Your task to perform on an android device: add a contact Image 0: 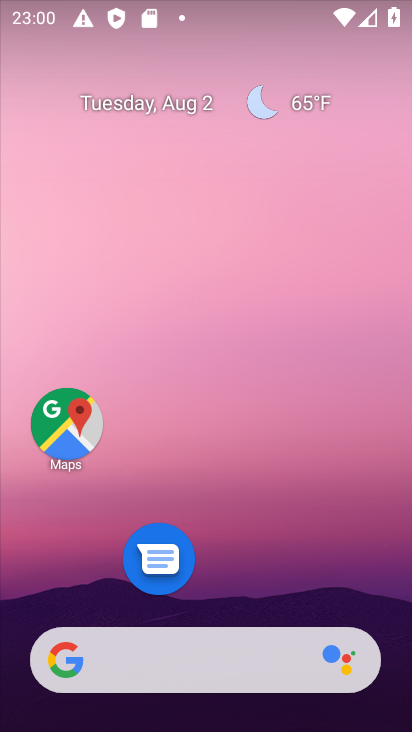
Step 0: drag from (160, 352) to (144, 240)
Your task to perform on an android device: add a contact Image 1: 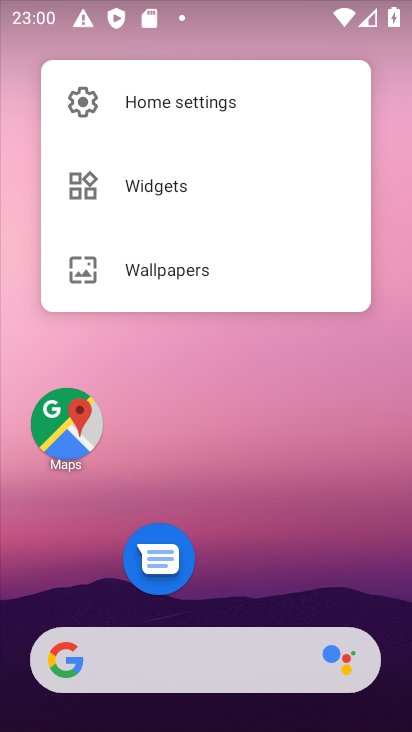
Step 1: drag from (225, 543) to (160, 126)
Your task to perform on an android device: add a contact Image 2: 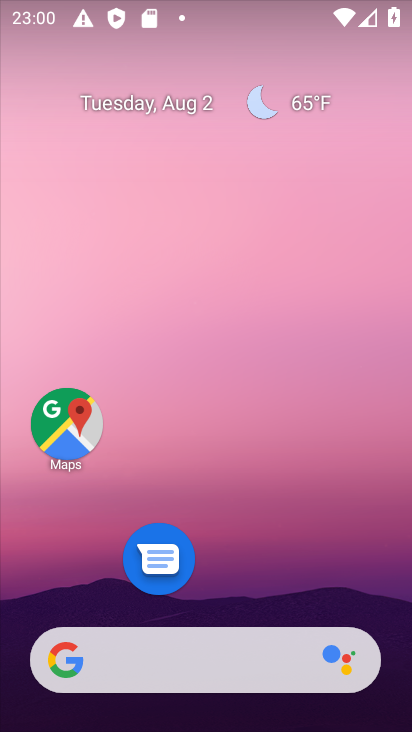
Step 2: drag from (232, 396) to (199, 73)
Your task to perform on an android device: add a contact Image 3: 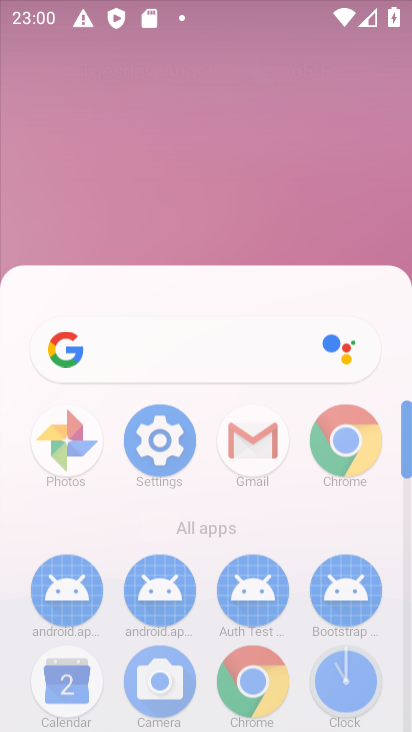
Step 3: drag from (227, 398) to (206, 35)
Your task to perform on an android device: add a contact Image 4: 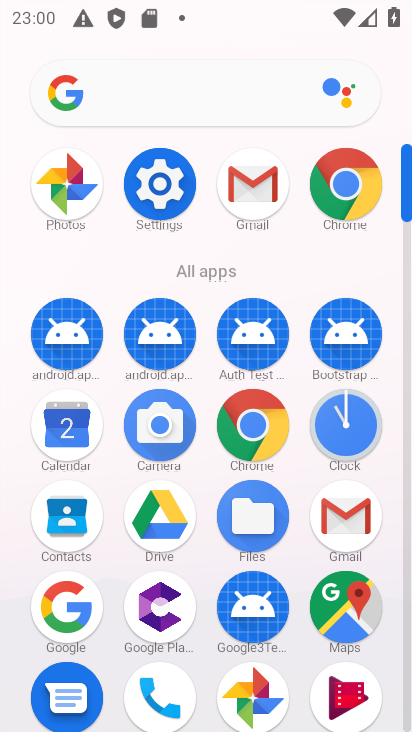
Step 4: drag from (268, 464) to (250, 183)
Your task to perform on an android device: add a contact Image 5: 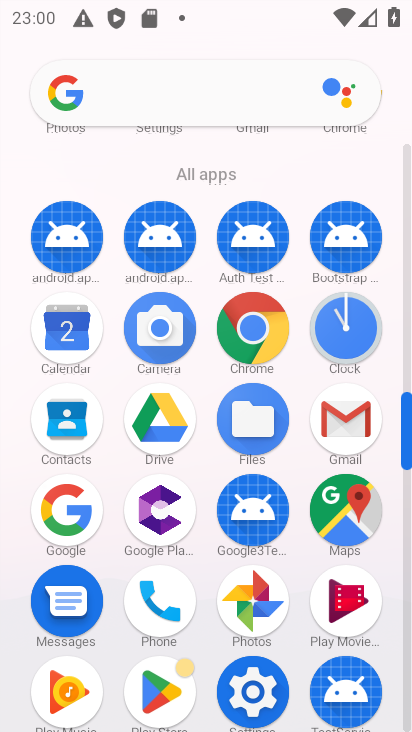
Step 5: click (244, 685)
Your task to perform on an android device: add a contact Image 6: 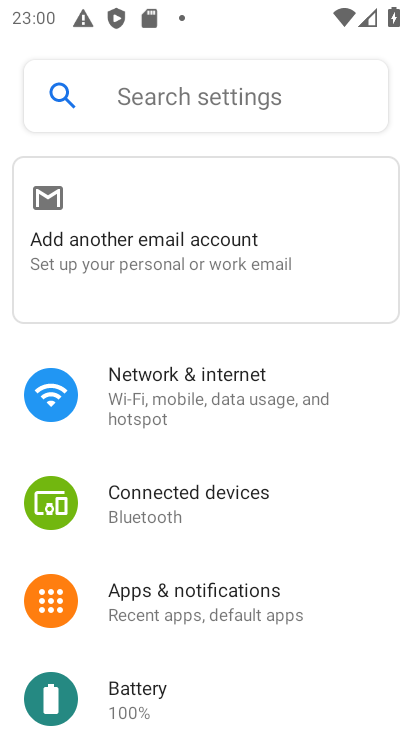
Step 6: click (250, 685)
Your task to perform on an android device: add a contact Image 7: 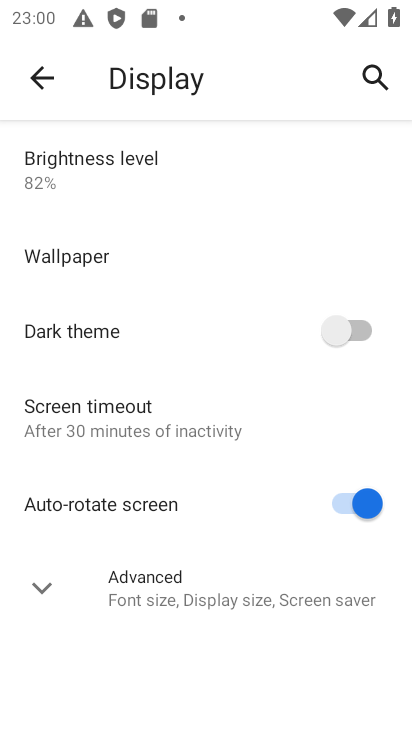
Step 7: click (38, 69)
Your task to perform on an android device: add a contact Image 8: 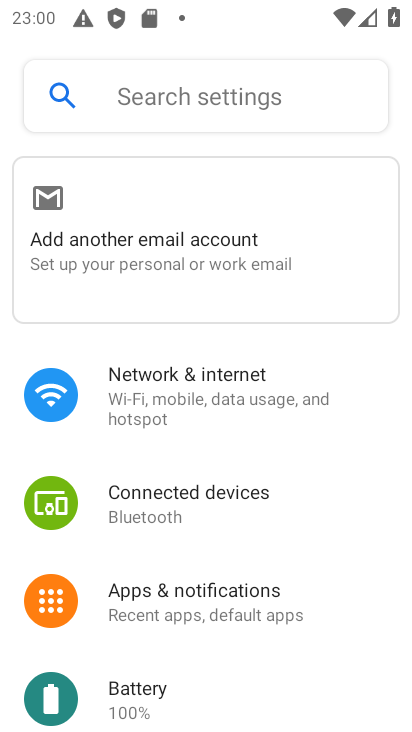
Step 8: drag from (157, 635) to (118, 370)
Your task to perform on an android device: add a contact Image 9: 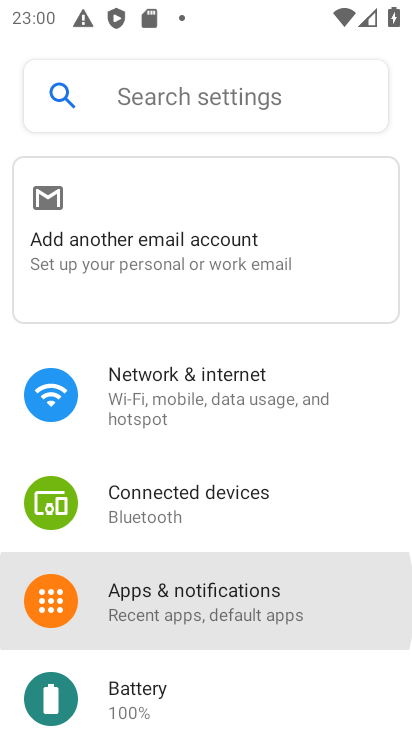
Step 9: drag from (164, 601) to (162, 397)
Your task to perform on an android device: add a contact Image 10: 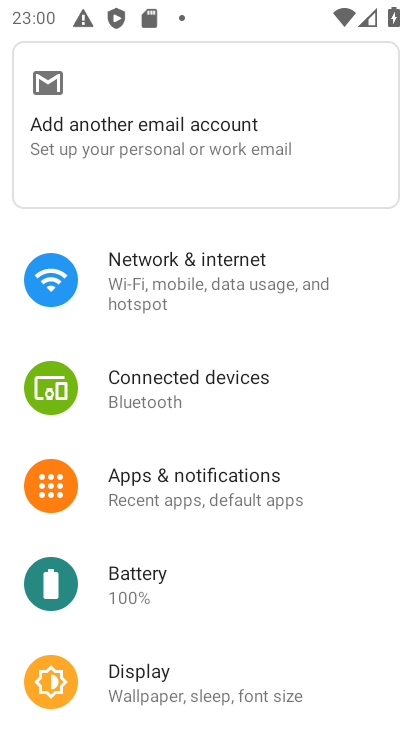
Step 10: drag from (197, 528) to (201, 420)
Your task to perform on an android device: add a contact Image 11: 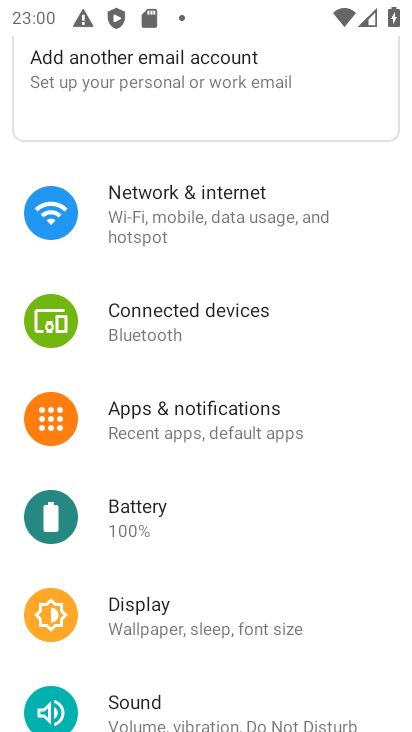
Step 11: press back button
Your task to perform on an android device: add a contact Image 12: 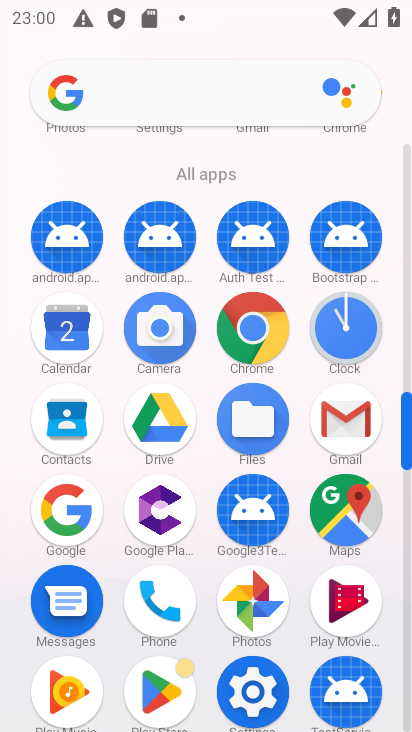
Step 12: click (60, 417)
Your task to perform on an android device: add a contact Image 13: 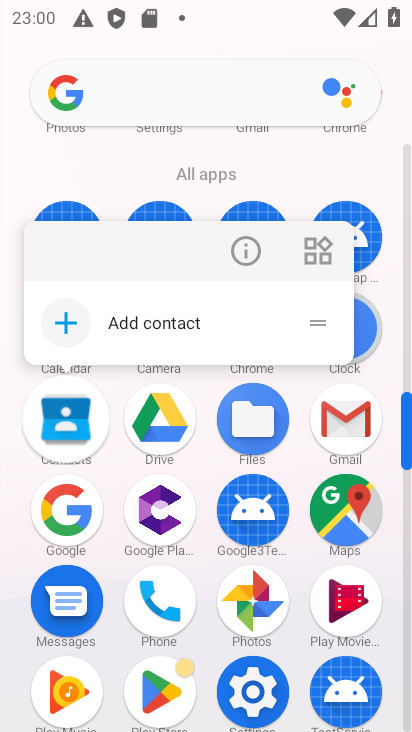
Step 13: click (60, 417)
Your task to perform on an android device: add a contact Image 14: 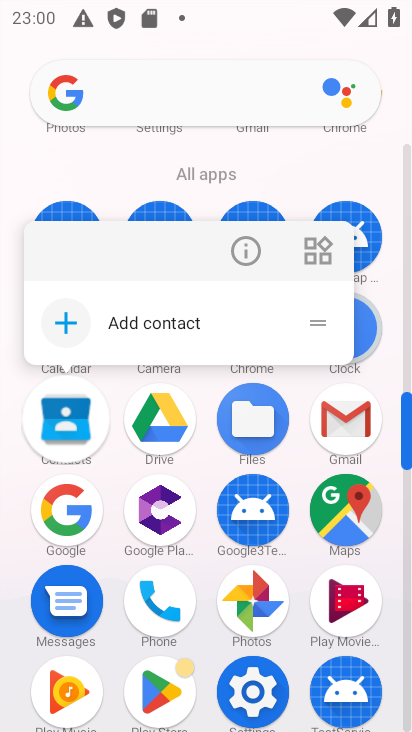
Step 14: click (63, 419)
Your task to perform on an android device: add a contact Image 15: 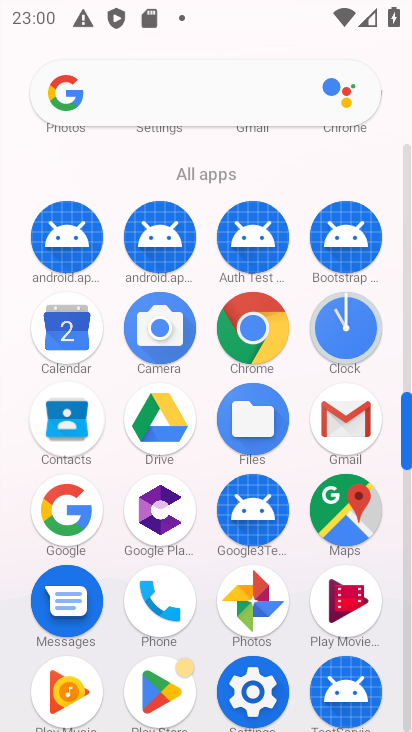
Step 15: click (64, 420)
Your task to perform on an android device: add a contact Image 16: 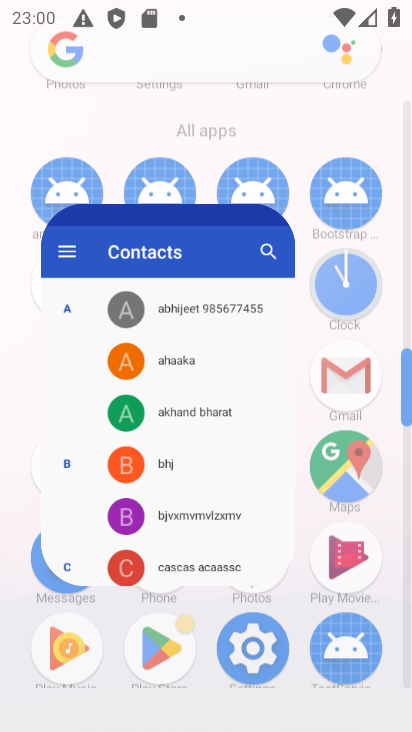
Step 16: click (64, 420)
Your task to perform on an android device: add a contact Image 17: 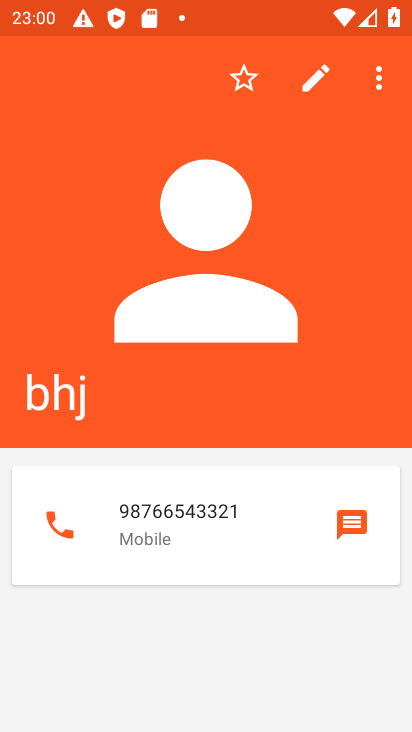
Step 17: press back button
Your task to perform on an android device: add a contact Image 18: 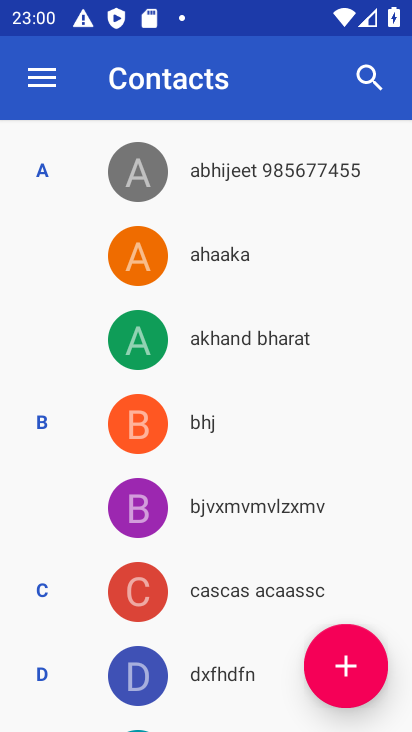
Step 18: click (329, 676)
Your task to perform on an android device: add a contact Image 19: 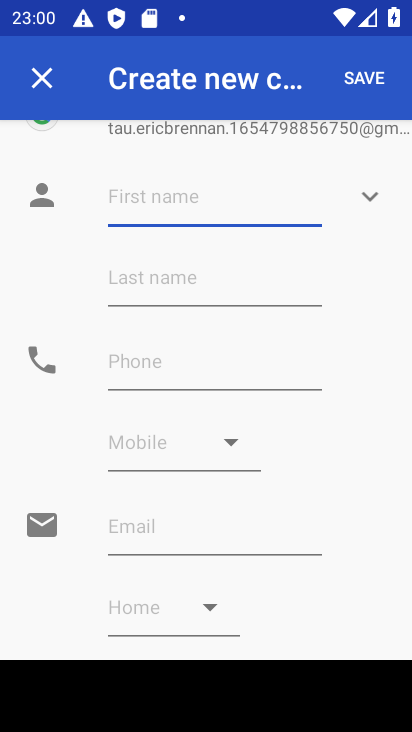
Step 19: type "hghjjjk"
Your task to perform on an android device: add a contact Image 20: 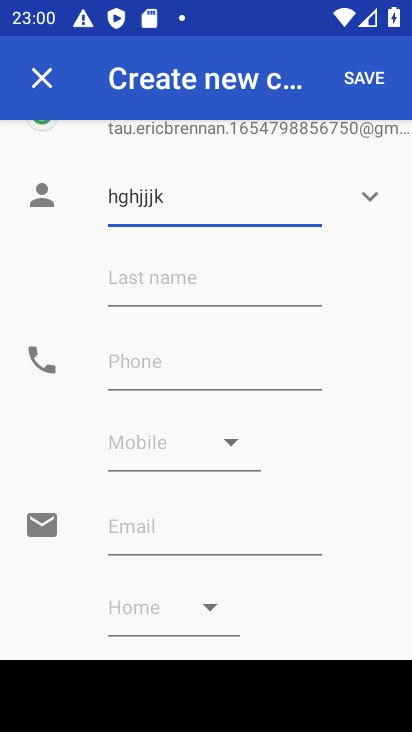
Step 20: click (120, 372)
Your task to perform on an android device: add a contact Image 21: 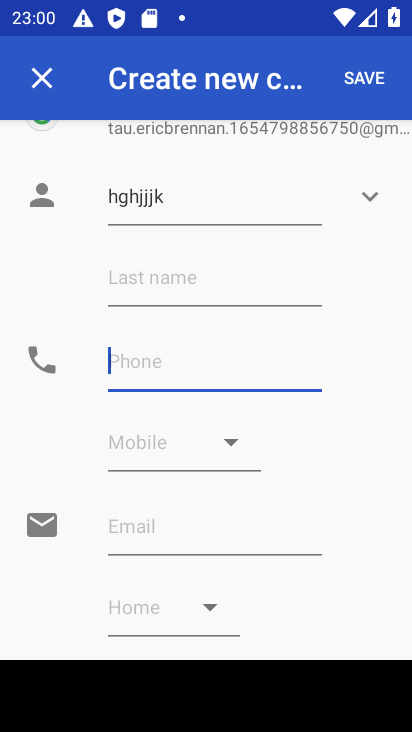
Step 21: click (120, 372)
Your task to perform on an android device: add a contact Image 22: 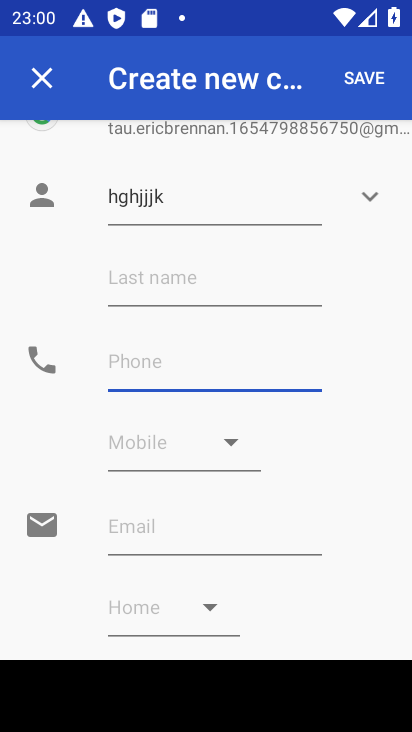
Step 22: click (120, 372)
Your task to perform on an android device: add a contact Image 23: 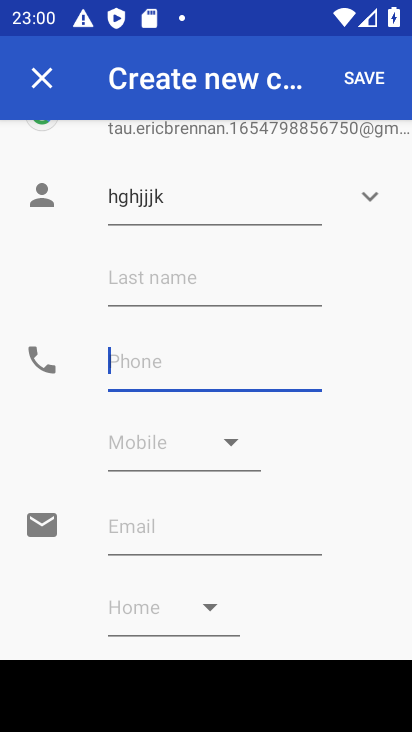
Step 23: type "6767889798798"
Your task to perform on an android device: add a contact Image 24: 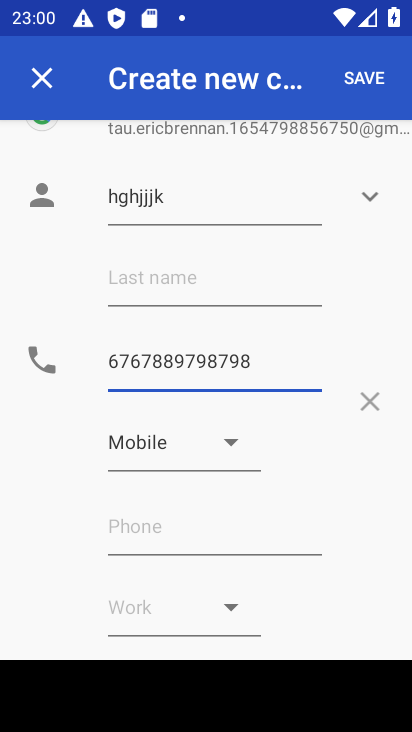
Step 24: click (371, 77)
Your task to perform on an android device: add a contact Image 25: 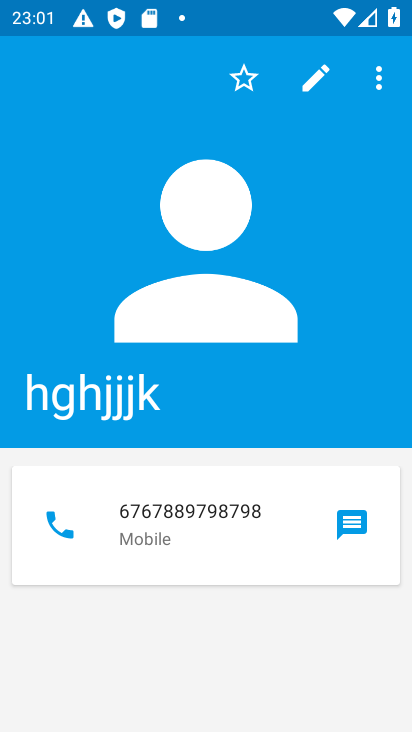
Step 25: task complete